Your task to perform on an android device: What's the weather? Image 0: 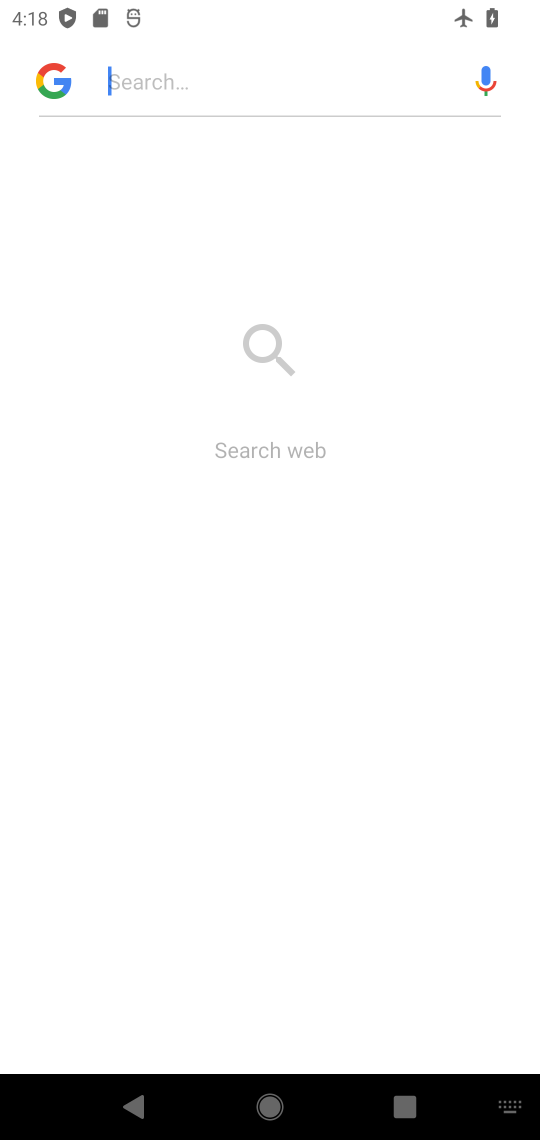
Step 0: press home button
Your task to perform on an android device: What's the weather? Image 1: 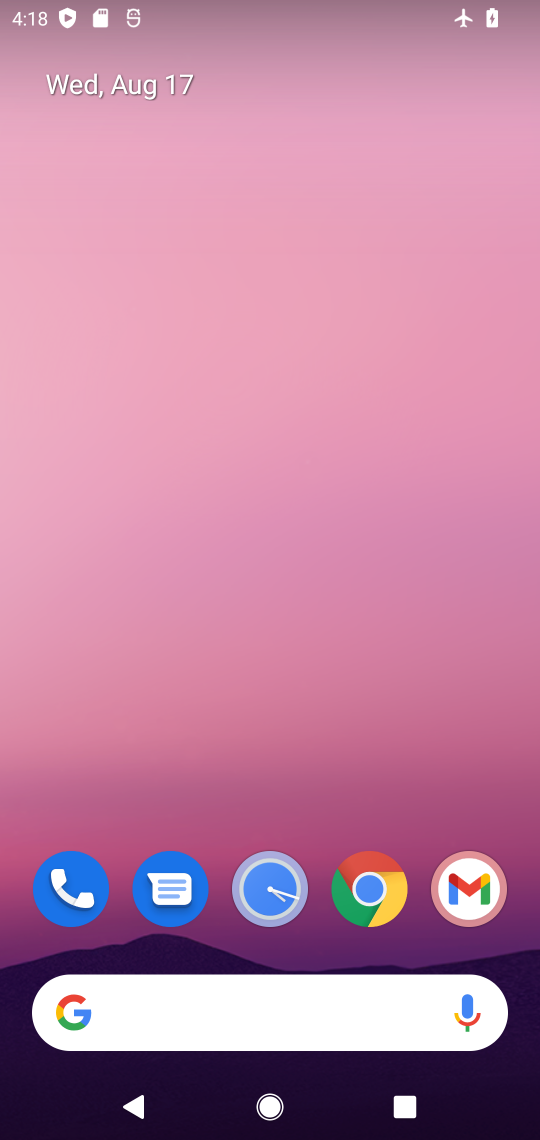
Step 1: click (366, 886)
Your task to perform on an android device: What's the weather? Image 2: 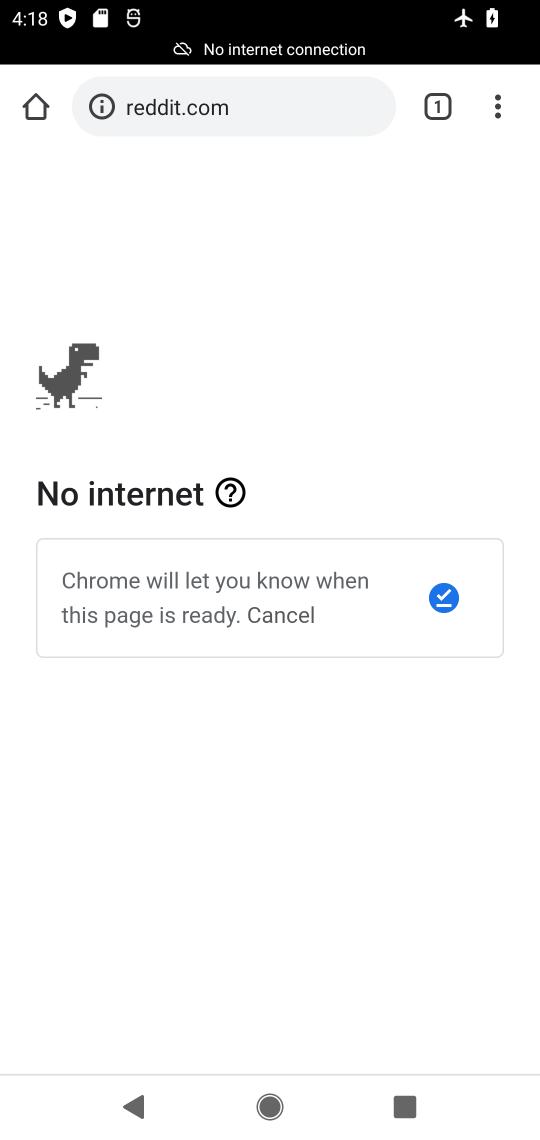
Step 2: click (495, 107)
Your task to perform on an android device: What's the weather? Image 3: 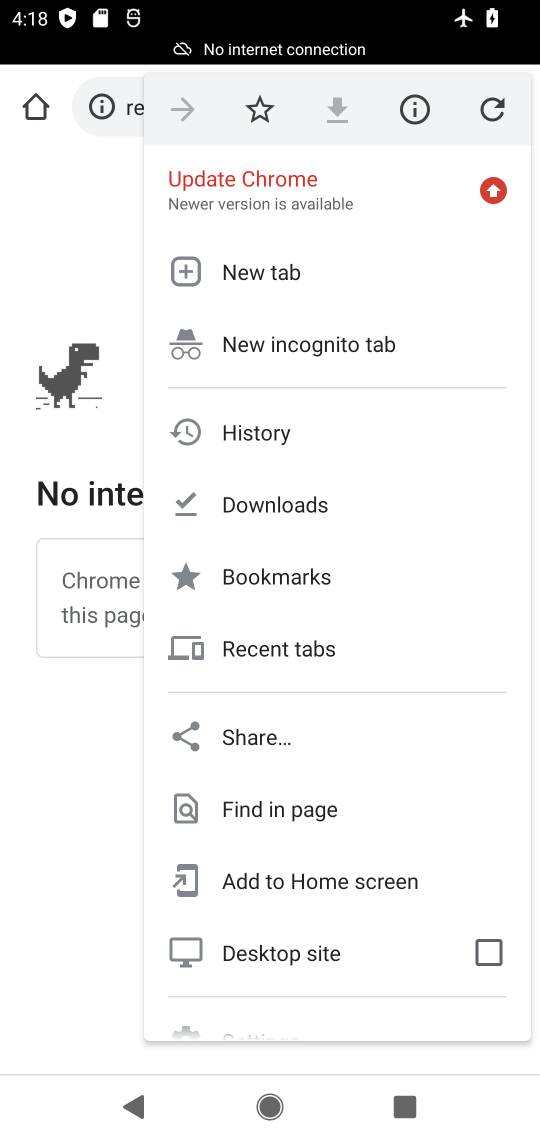
Step 3: click (275, 271)
Your task to perform on an android device: What's the weather? Image 4: 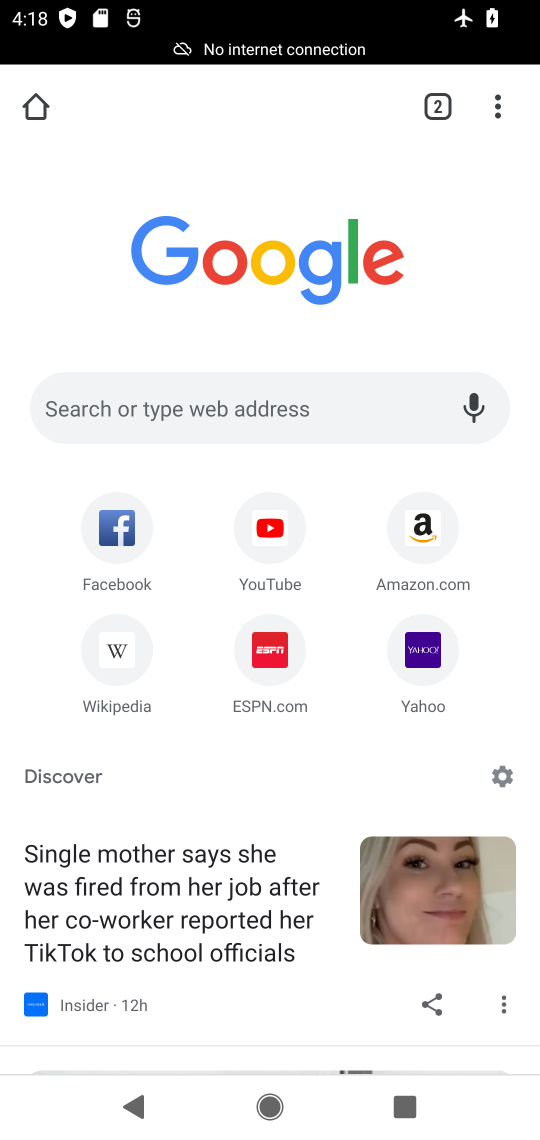
Step 4: click (236, 399)
Your task to perform on an android device: What's the weather? Image 5: 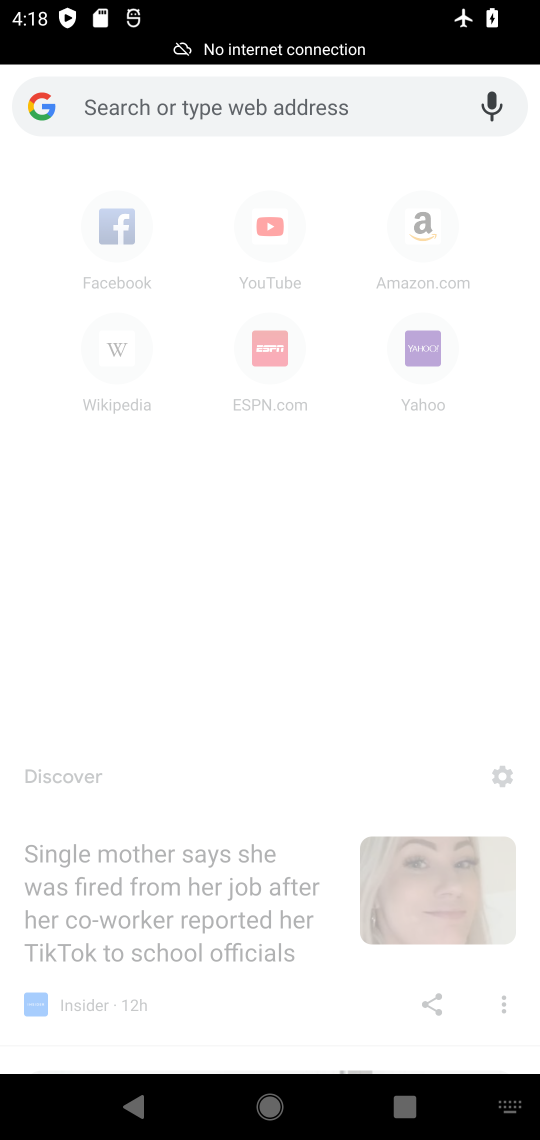
Step 5: type "weather"
Your task to perform on an android device: What's the weather? Image 6: 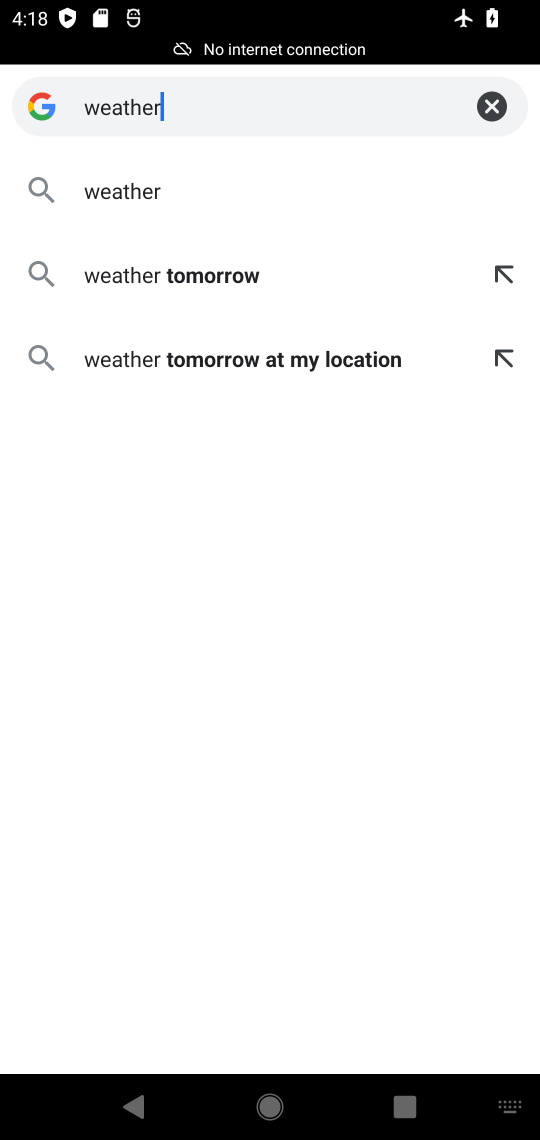
Step 6: click (103, 181)
Your task to perform on an android device: What's the weather? Image 7: 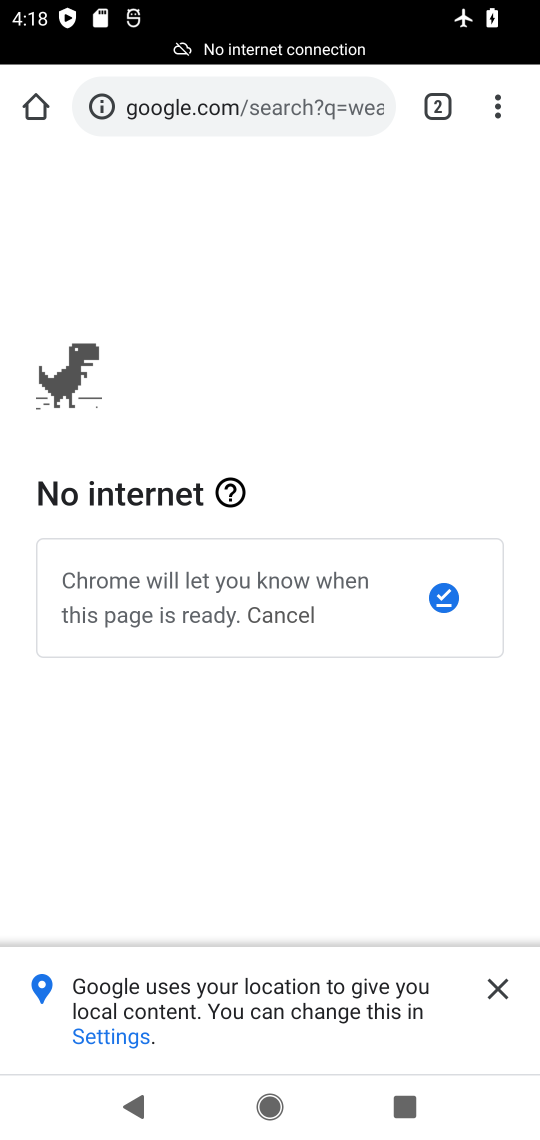
Step 7: task complete